Your task to perform on an android device: Play the last video I watched on Youtube Image 0: 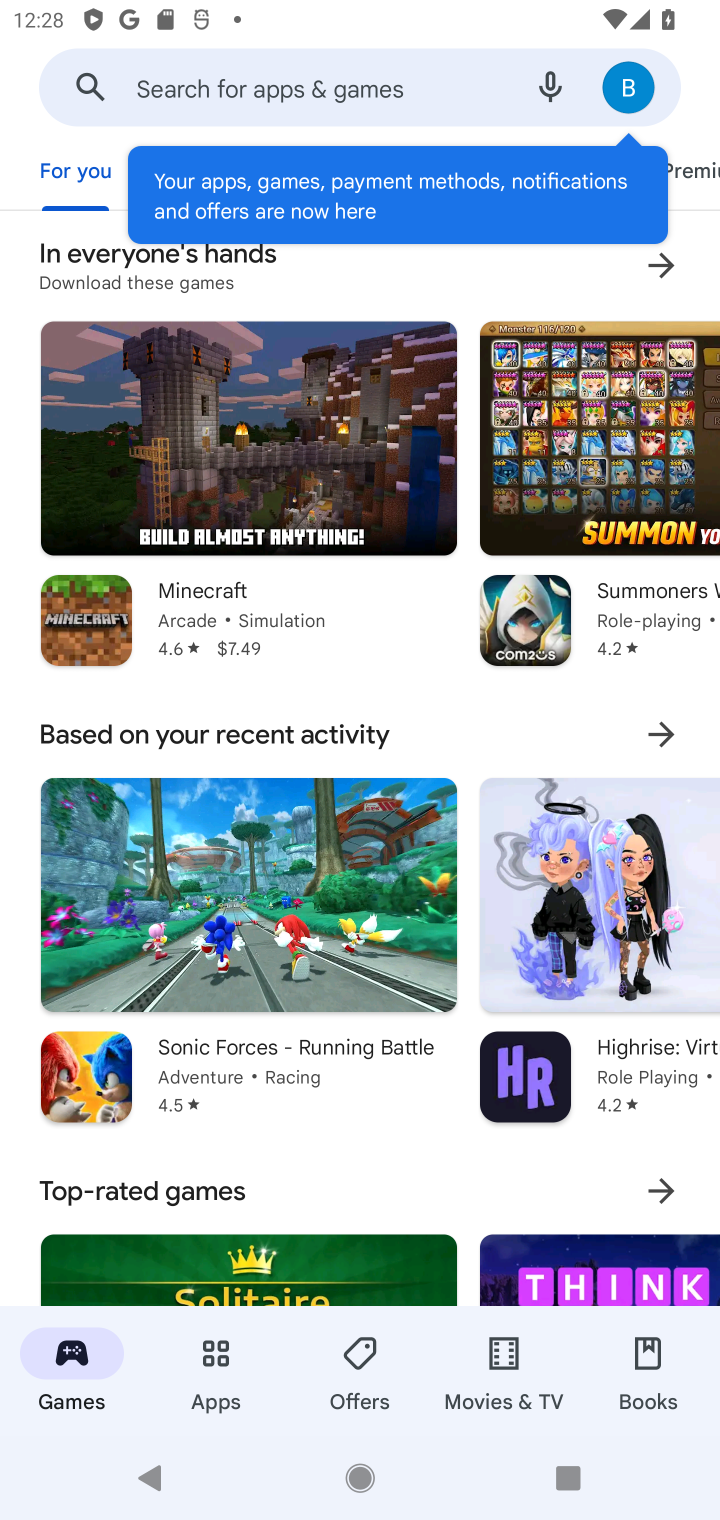
Step 0: press home button
Your task to perform on an android device: Play the last video I watched on Youtube Image 1: 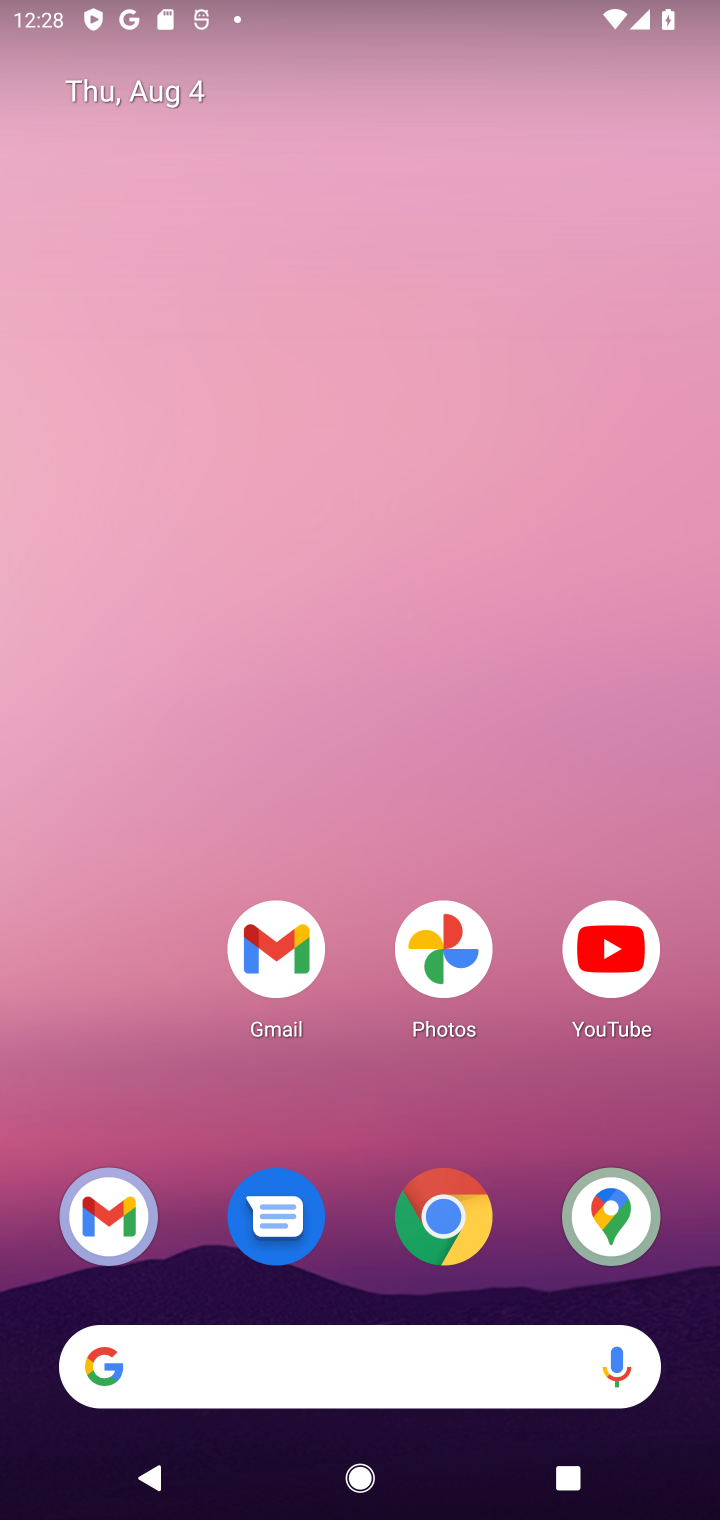
Step 1: drag from (494, 836) to (442, 287)
Your task to perform on an android device: Play the last video I watched on Youtube Image 2: 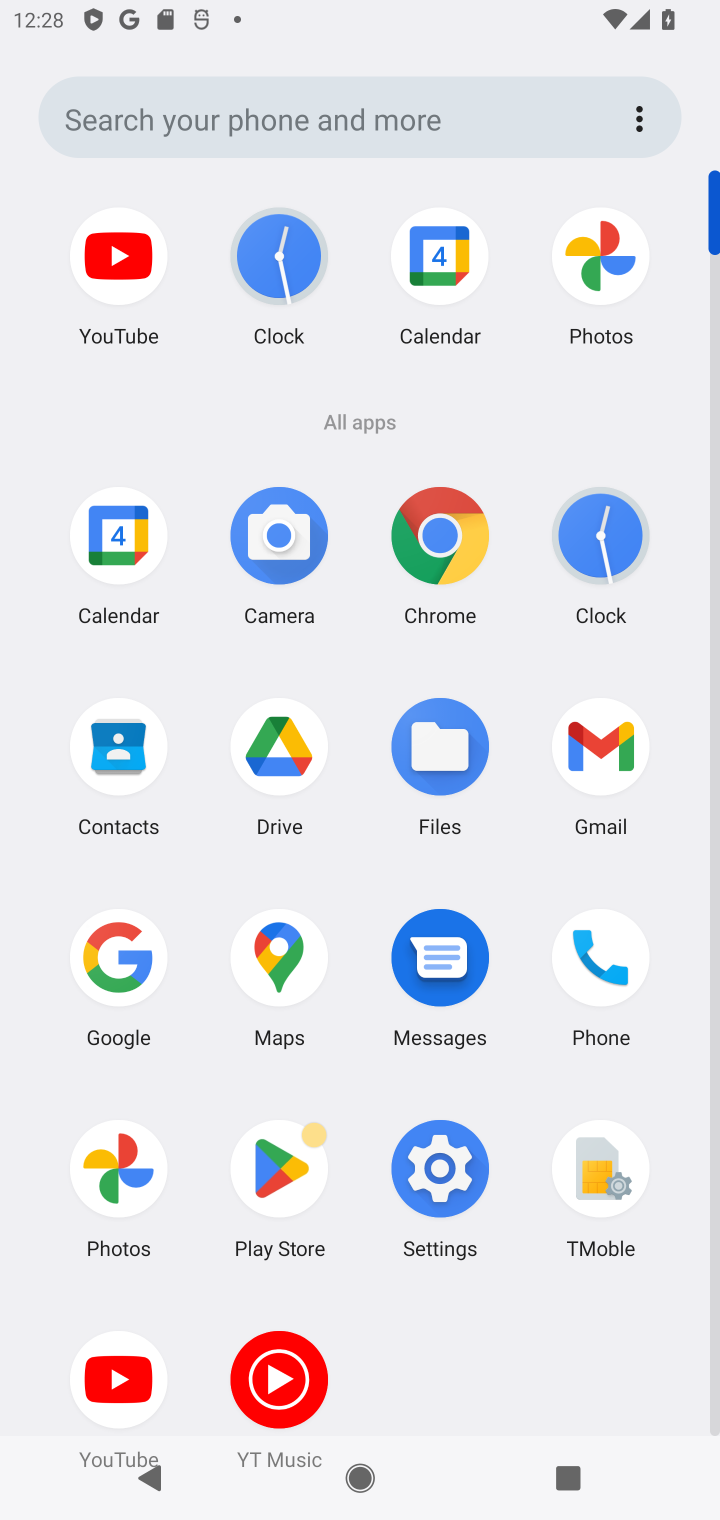
Step 2: click (97, 267)
Your task to perform on an android device: Play the last video I watched on Youtube Image 3: 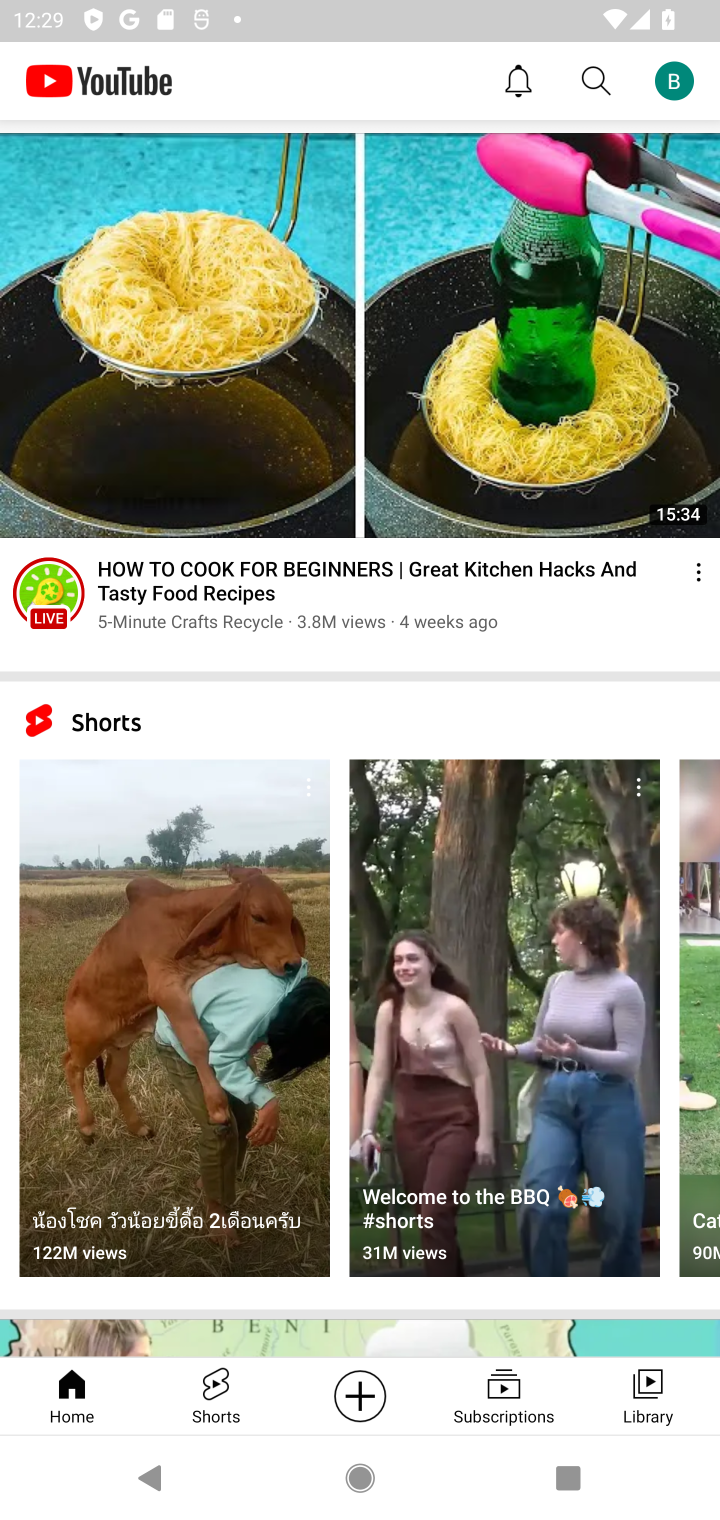
Step 3: task complete